Your task to perform on an android device: Open battery settings Image 0: 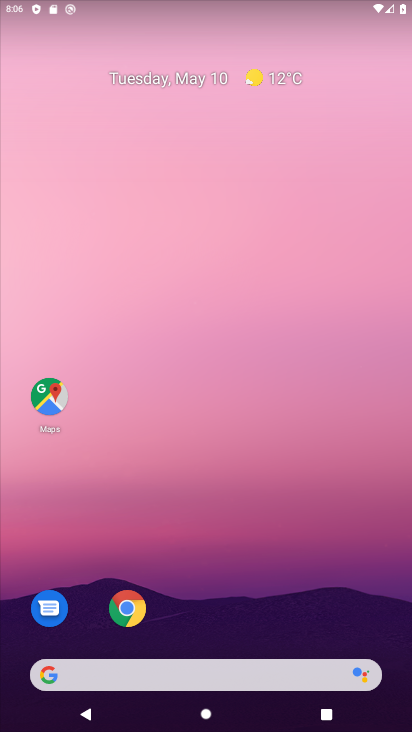
Step 0: drag from (220, 664) to (215, 190)
Your task to perform on an android device: Open battery settings Image 1: 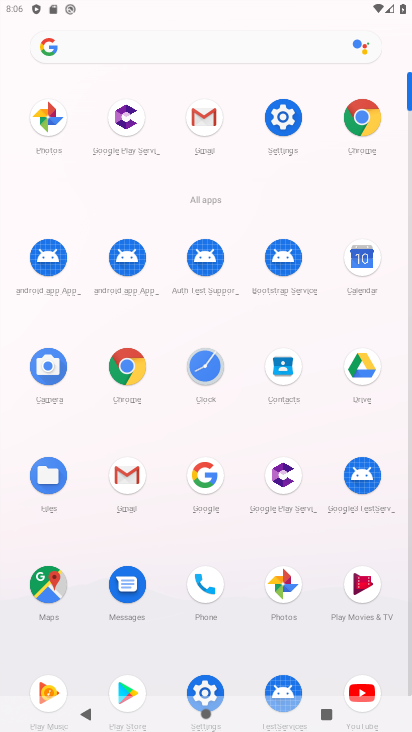
Step 1: click (284, 113)
Your task to perform on an android device: Open battery settings Image 2: 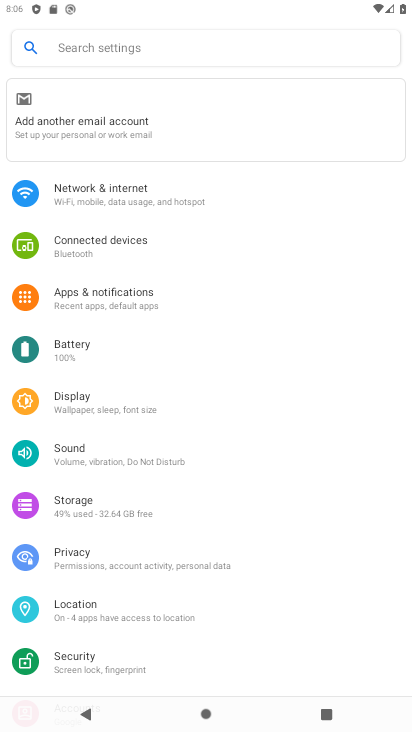
Step 2: click (68, 351)
Your task to perform on an android device: Open battery settings Image 3: 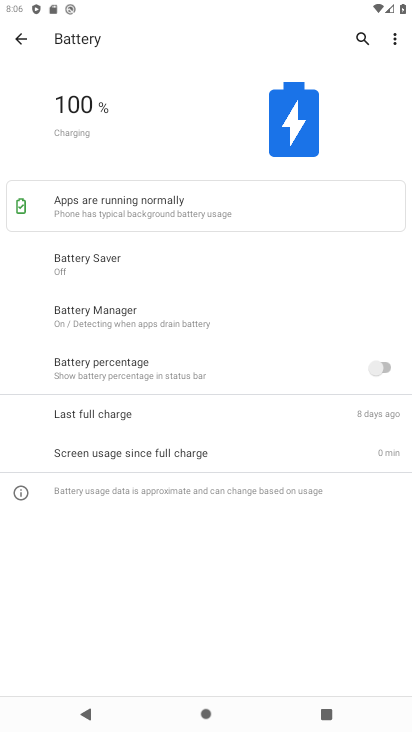
Step 3: task complete